Your task to perform on an android device: Open the stopwatch Image 0: 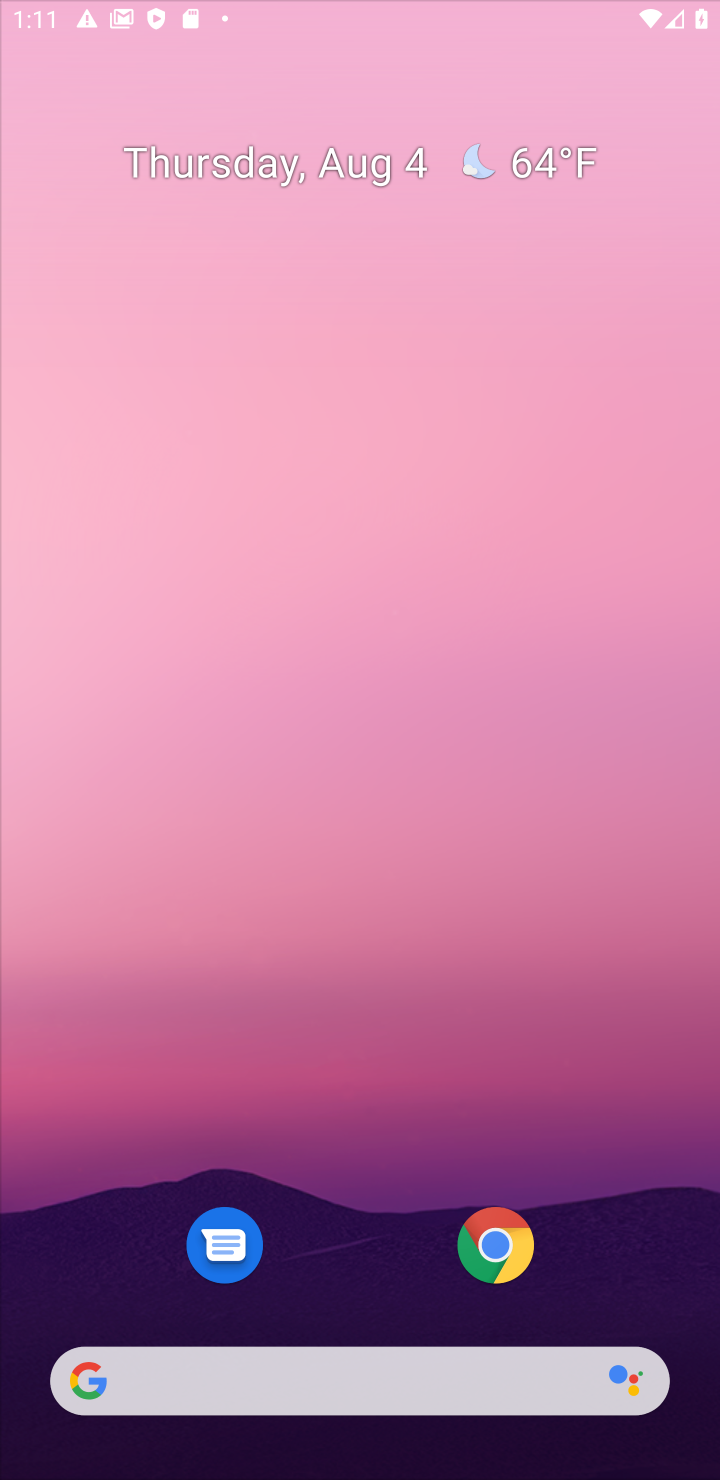
Step 0: press home button
Your task to perform on an android device: Open the stopwatch Image 1: 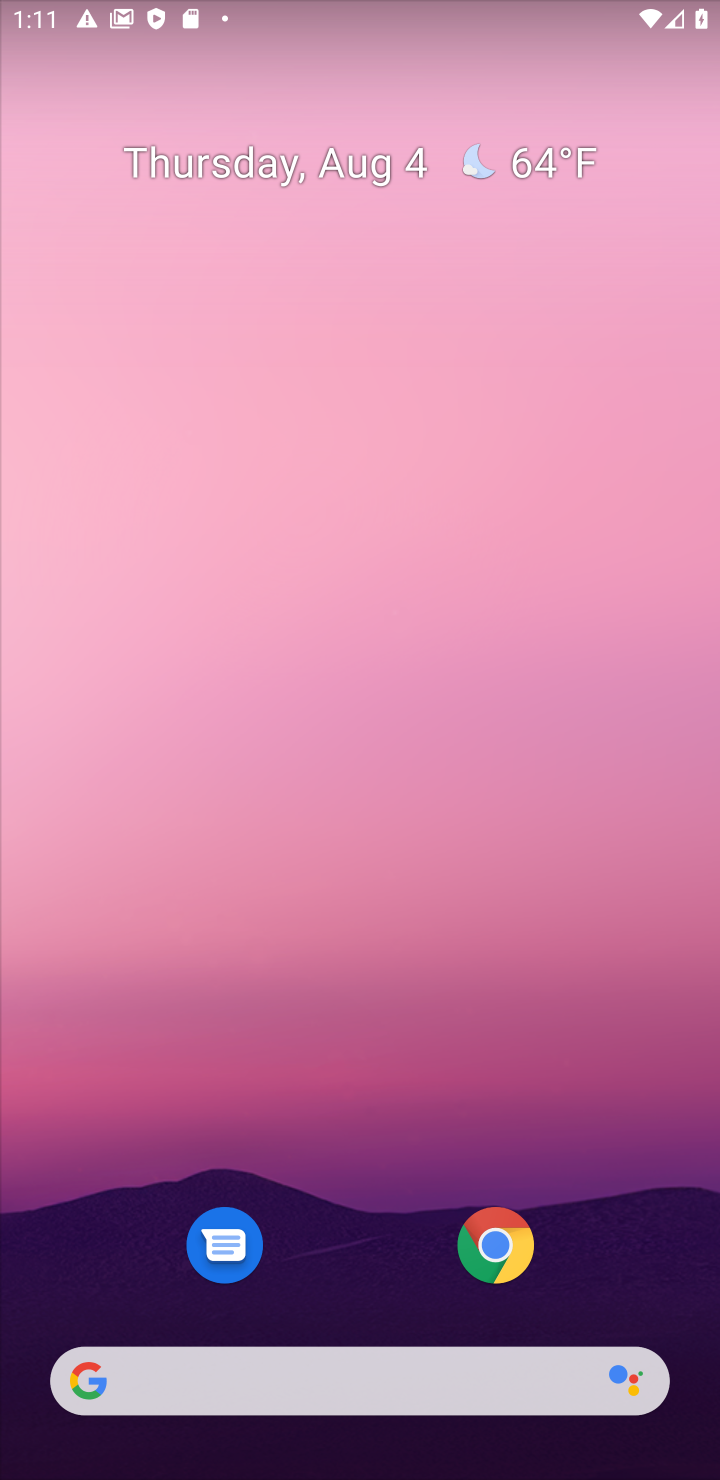
Step 1: drag from (336, 1180) to (319, 5)
Your task to perform on an android device: Open the stopwatch Image 2: 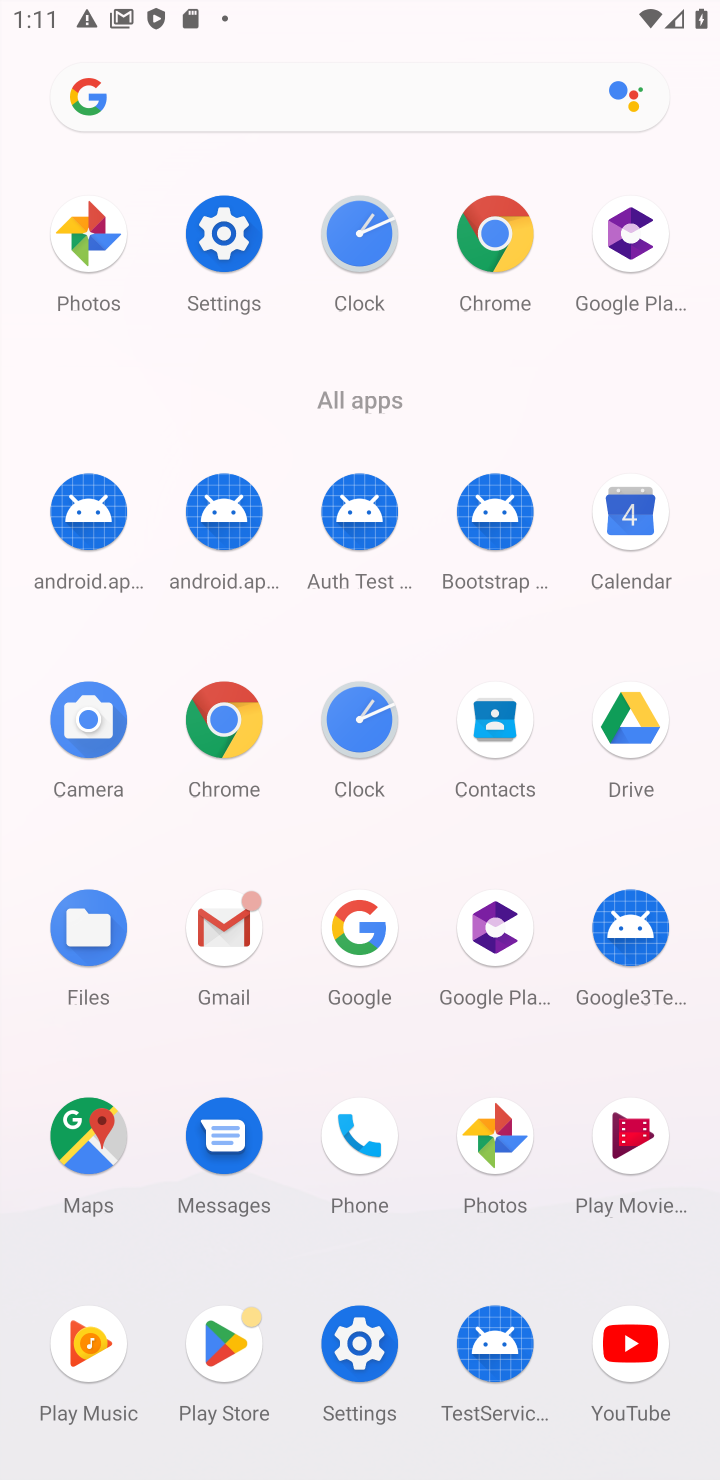
Step 2: click (369, 710)
Your task to perform on an android device: Open the stopwatch Image 3: 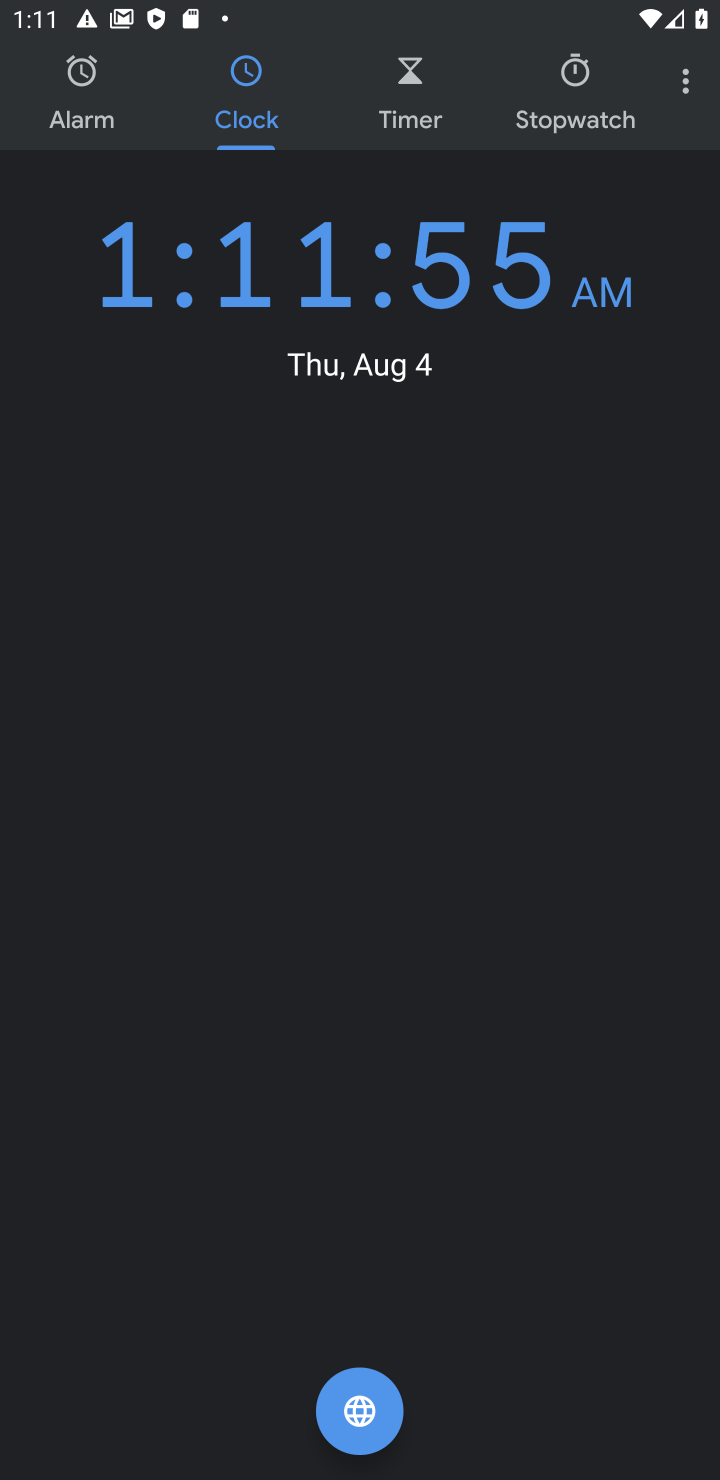
Step 3: click (575, 75)
Your task to perform on an android device: Open the stopwatch Image 4: 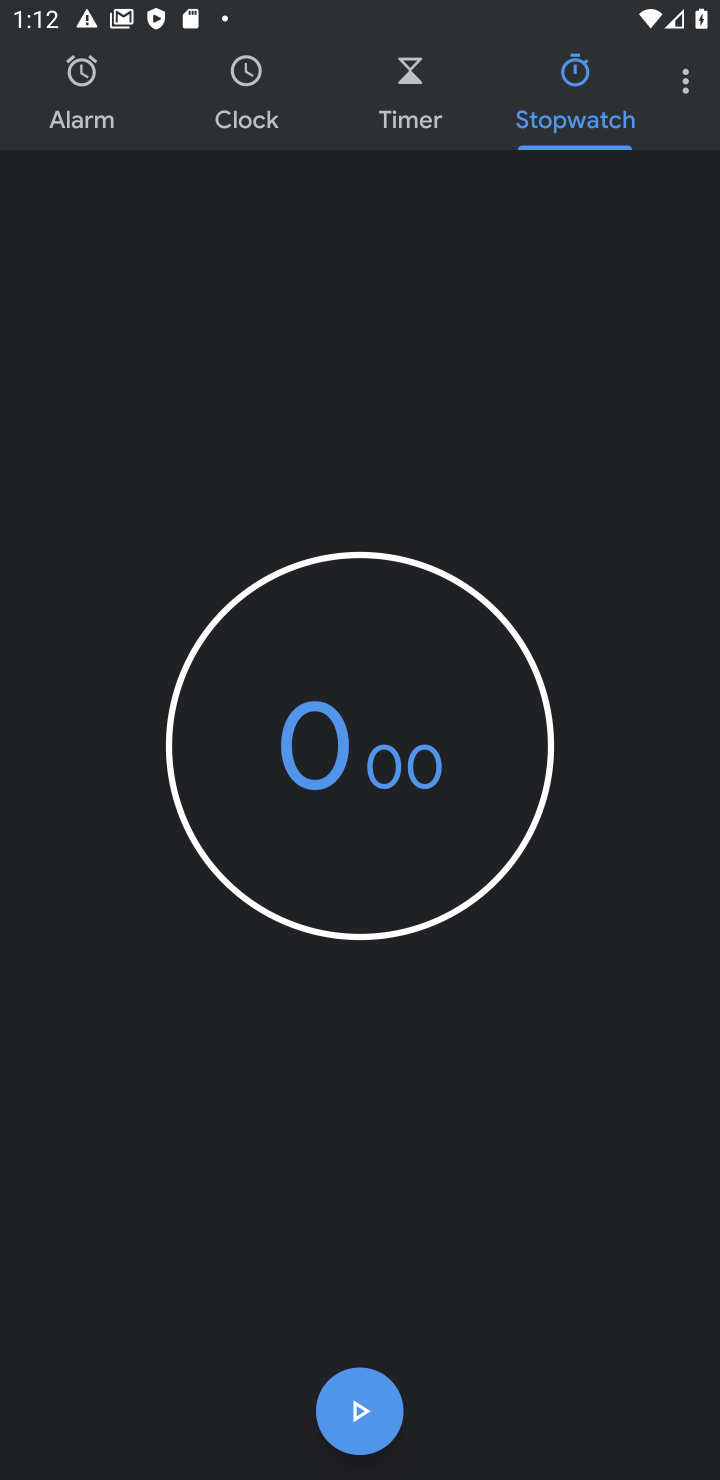
Step 4: task complete